Your task to perform on an android device: add a contact in the contacts app Image 0: 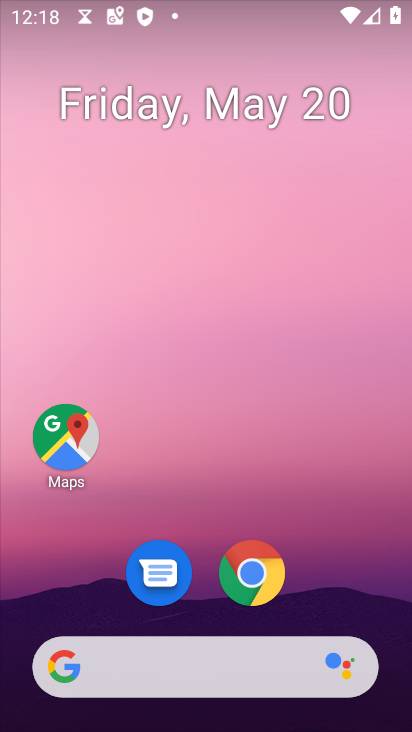
Step 0: drag from (363, 560) to (275, 16)
Your task to perform on an android device: add a contact in the contacts app Image 1: 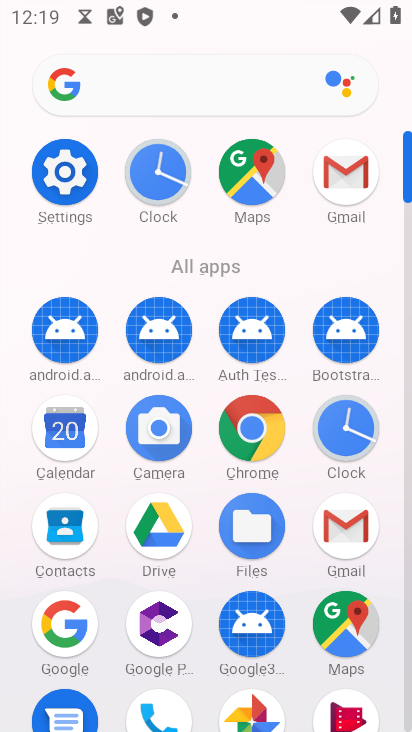
Step 1: click (56, 528)
Your task to perform on an android device: add a contact in the contacts app Image 2: 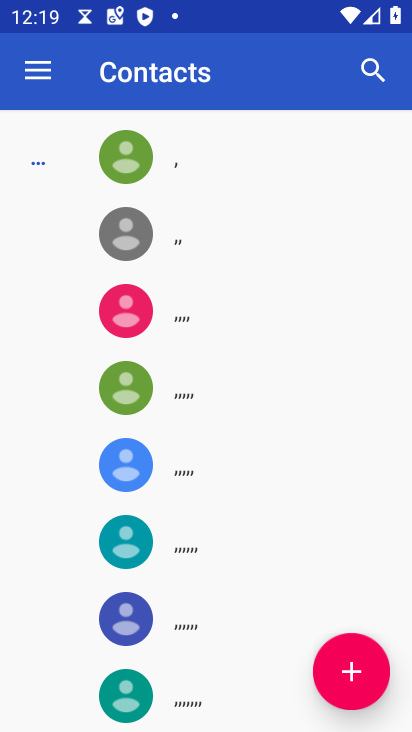
Step 2: click (347, 669)
Your task to perform on an android device: add a contact in the contacts app Image 3: 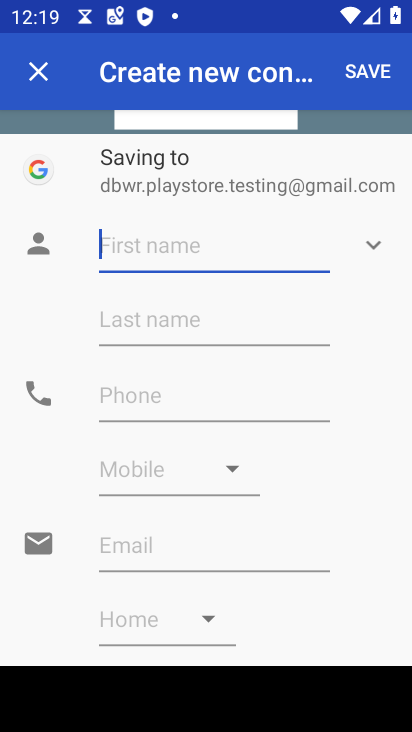
Step 3: type "udsatfcx"
Your task to perform on an android device: add a contact in the contacts app Image 4: 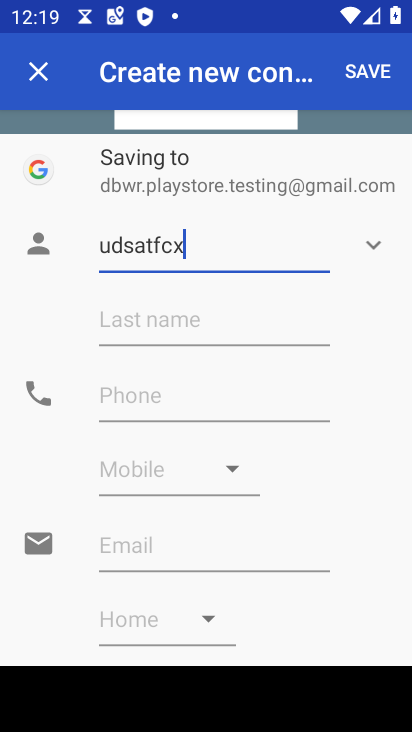
Step 4: click (133, 396)
Your task to perform on an android device: add a contact in the contacts app Image 5: 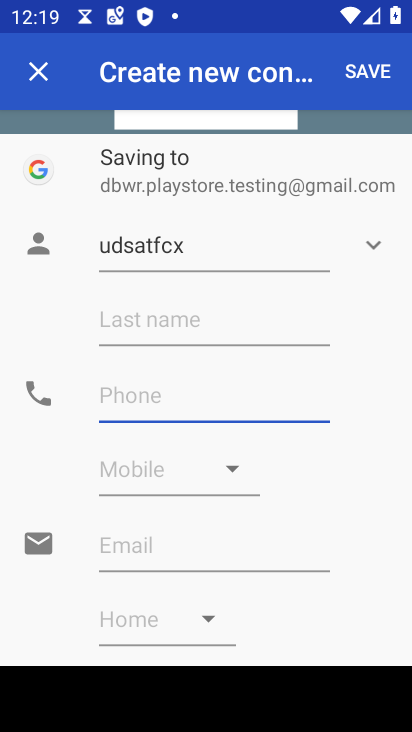
Step 5: type "6789098765"
Your task to perform on an android device: add a contact in the contacts app Image 6: 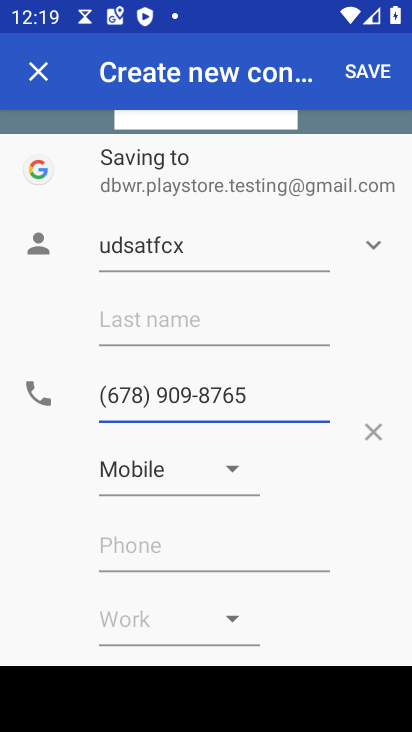
Step 6: click (365, 76)
Your task to perform on an android device: add a contact in the contacts app Image 7: 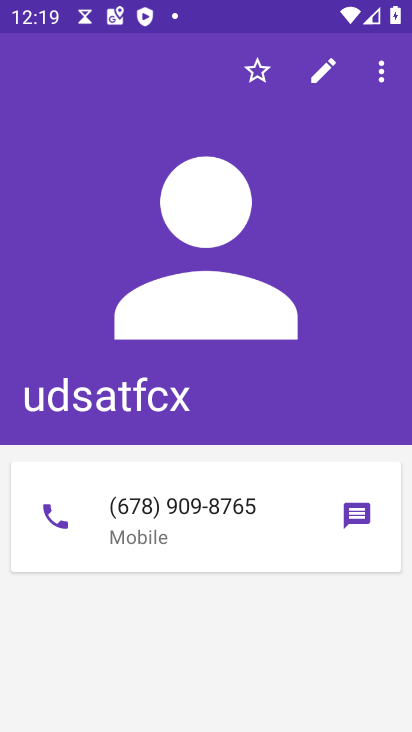
Step 7: task complete